Your task to perform on an android device: Open Youtube and go to the subscriptions tab Image 0: 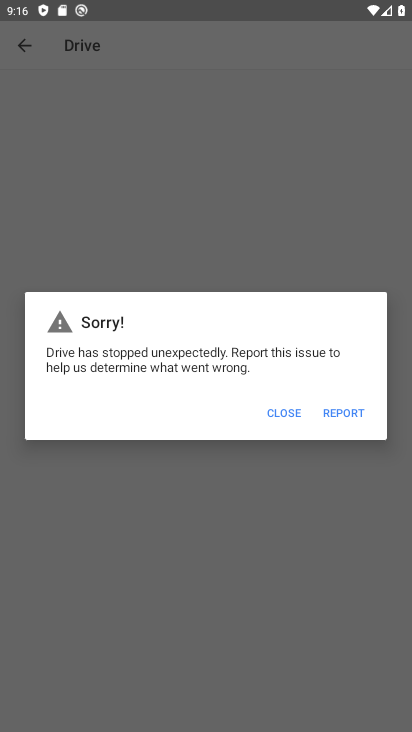
Step 0: press home button
Your task to perform on an android device: Open Youtube and go to the subscriptions tab Image 1: 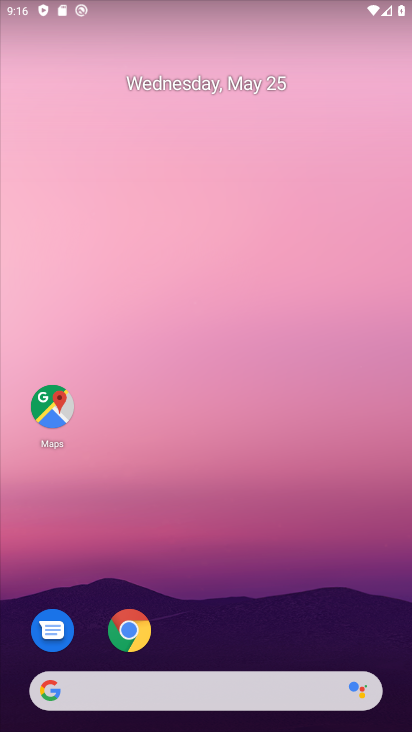
Step 1: drag from (254, 622) to (369, 102)
Your task to perform on an android device: Open Youtube and go to the subscriptions tab Image 2: 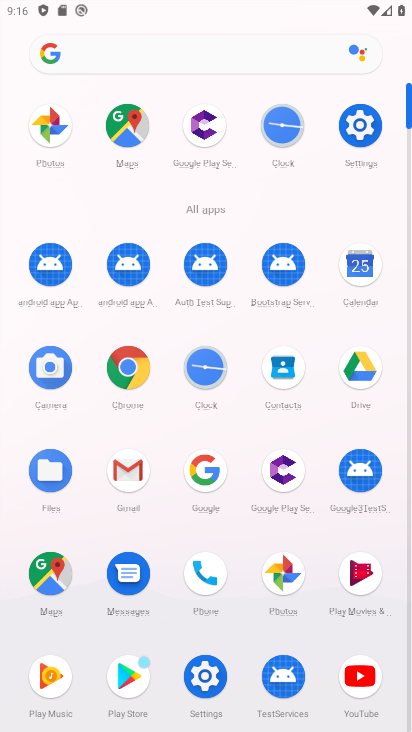
Step 2: click (350, 668)
Your task to perform on an android device: Open Youtube and go to the subscriptions tab Image 3: 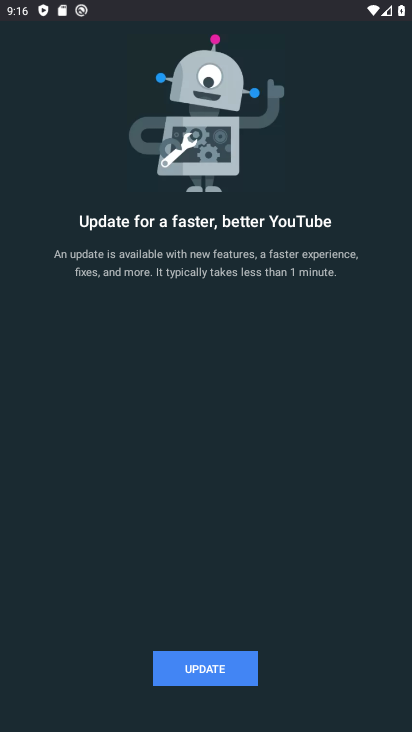
Step 3: click (192, 658)
Your task to perform on an android device: Open Youtube and go to the subscriptions tab Image 4: 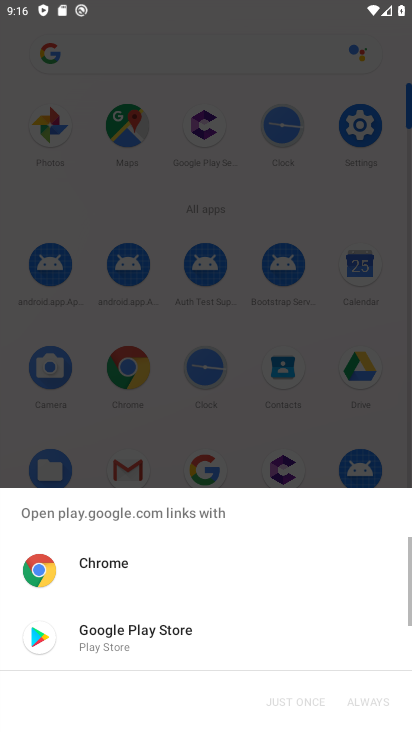
Step 4: click (172, 643)
Your task to perform on an android device: Open Youtube and go to the subscriptions tab Image 5: 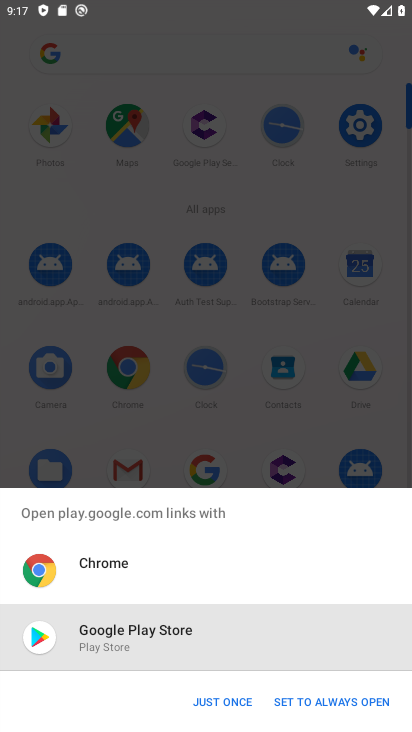
Step 5: click (201, 688)
Your task to perform on an android device: Open Youtube and go to the subscriptions tab Image 6: 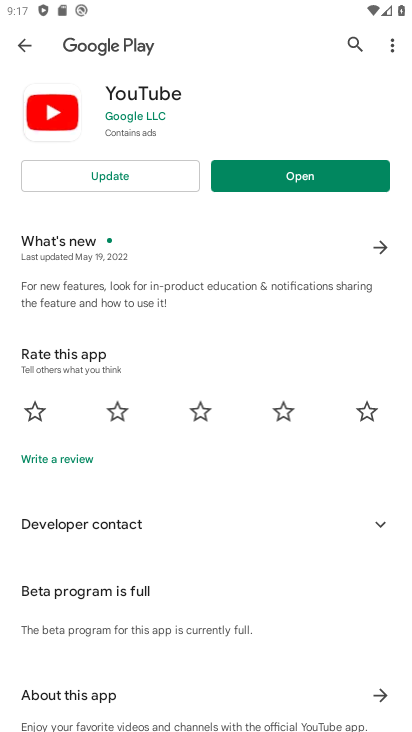
Step 6: click (134, 179)
Your task to perform on an android device: Open Youtube and go to the subscriptions tab Image 7: 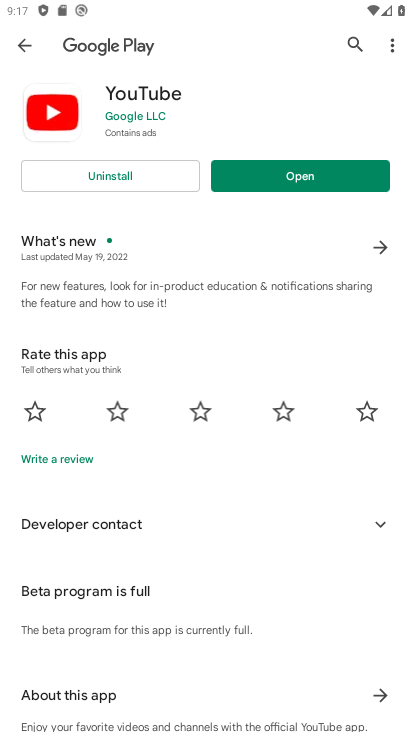
Step 7: click (280, 170)
Your task to perform on an android device: Open Youtube and go to the subscriptions tab Image 8: 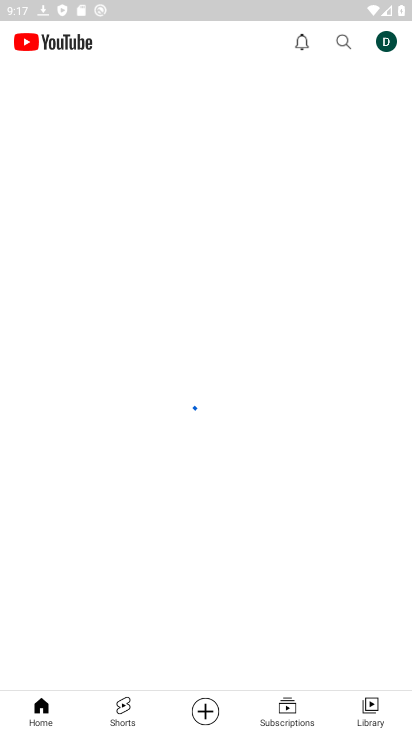
Step 8: click (280, 719)
Your task to perform on an android device: Open Youtube and go to the subscriptions tab Image 9: 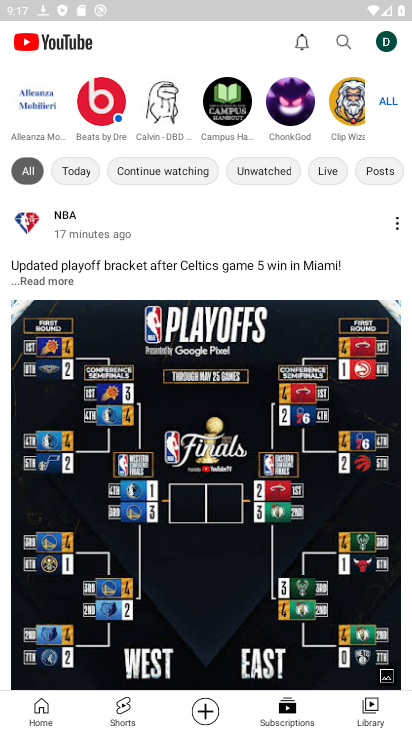
Step 9: task complete